Your task to perform on an android device: turn off location history Image 0: 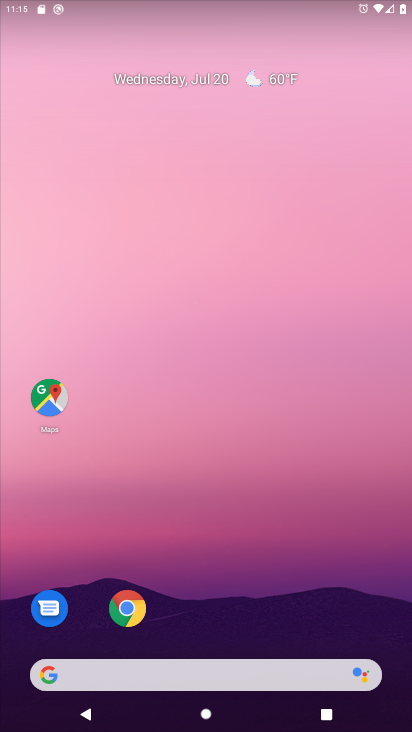
Step 0: drag from (332, 579) to (331, 5)
Your task to perform on an android device: turn off location history Image 1: 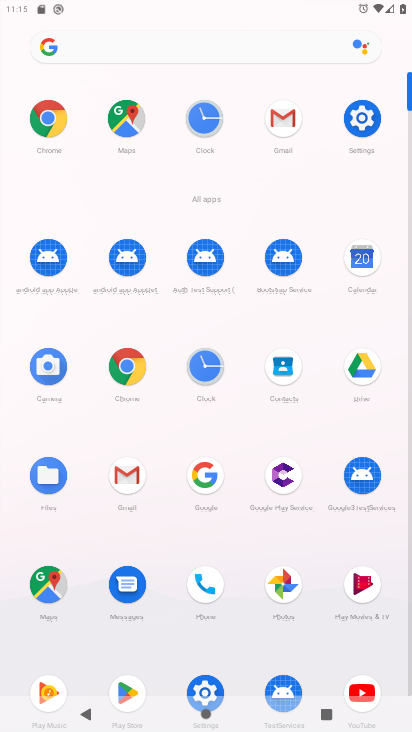
Step 1: click (206, 677)
Your task to perform on an android device: turn off location history Image 2: 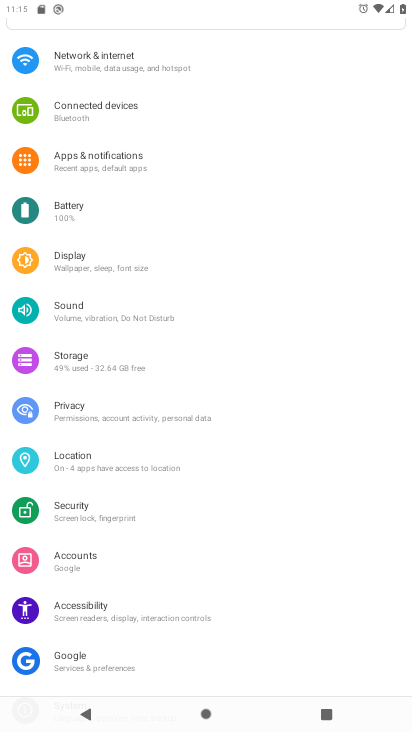
Step 2: click (95, 456)
Your task to perform on an android device: turn off location history Image 3: 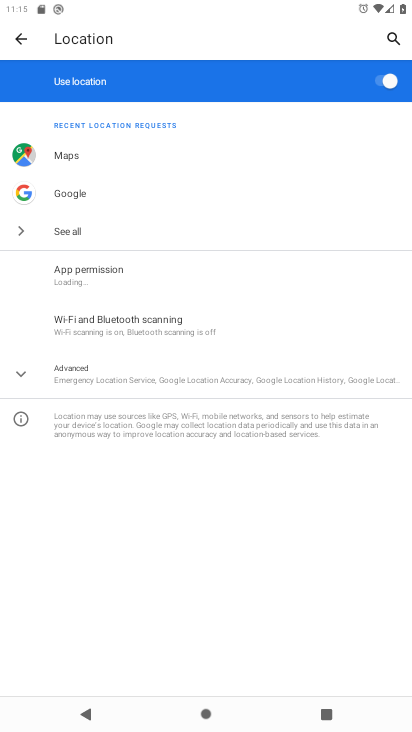
Step 3: click (127, 380)
Your task to perform on an android device: turn off location history Image 4: 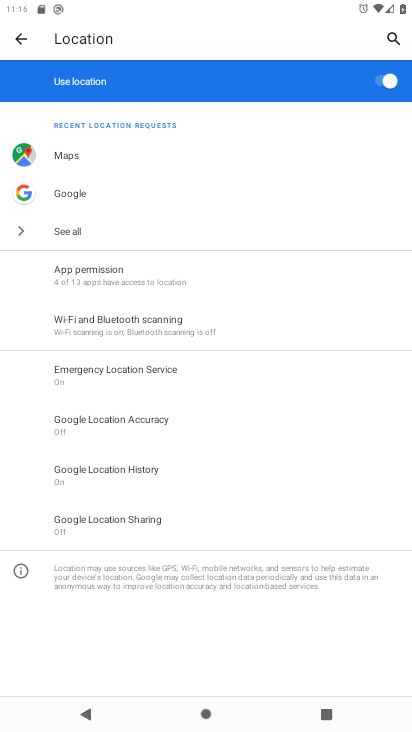
Step 4: click (82, 473)
Your task to perform on an android device: turn off location history Image 5: 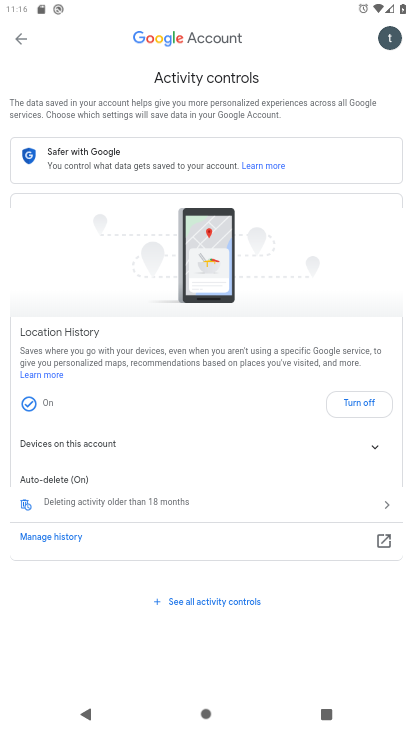
Step 5: click (366, 408)
Your task to perform on an android device: turn off location history Image 6: 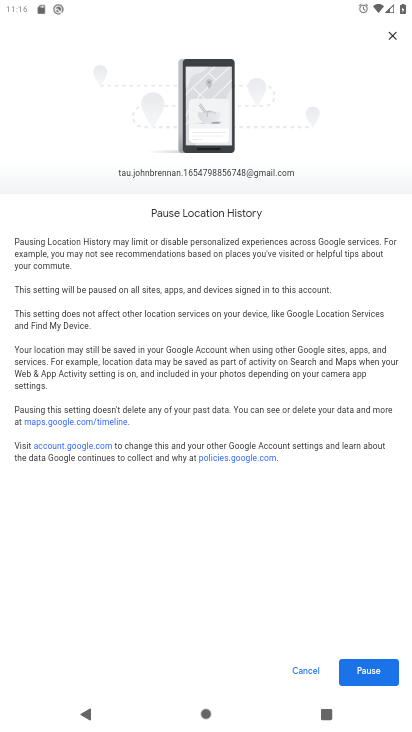
Step 6: click (360, 671)
Your task to perform on an android device: turn off location history Image 7: 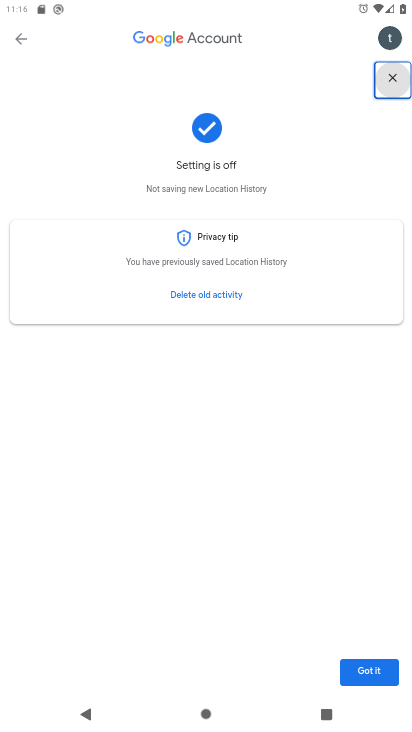
Step 7: click (352, 669)
Your task to perform on an android device: turn off location history Image 8: 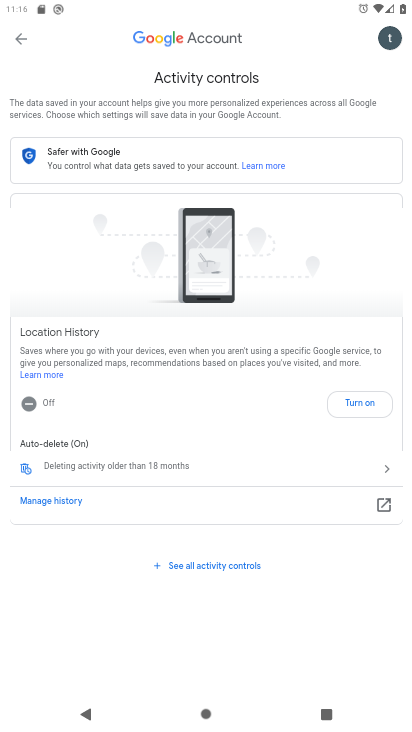
Step 8: task complete